Your task to perform on an android device: toggle sleep mode Image 0: 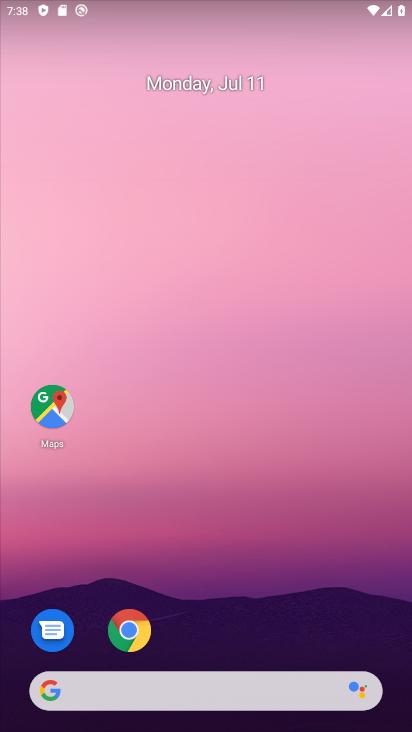
Step 0: click (129, 629)
Your task to perform on an android device: toggle sleep mode Image 1: 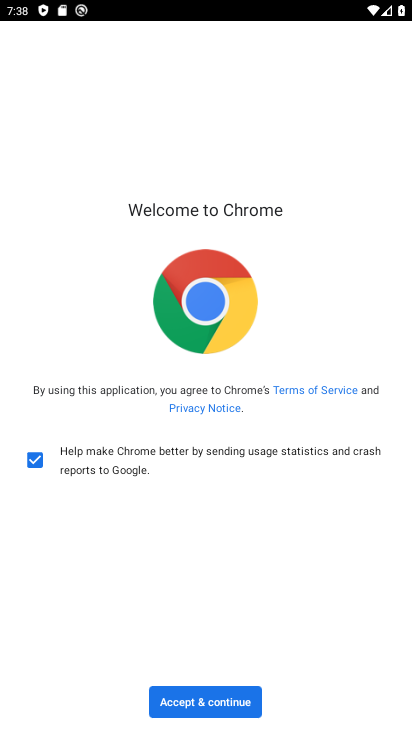
Step 1: click (210, 693)
Your task to perform on an android device: toggle sleep mode Image 2: 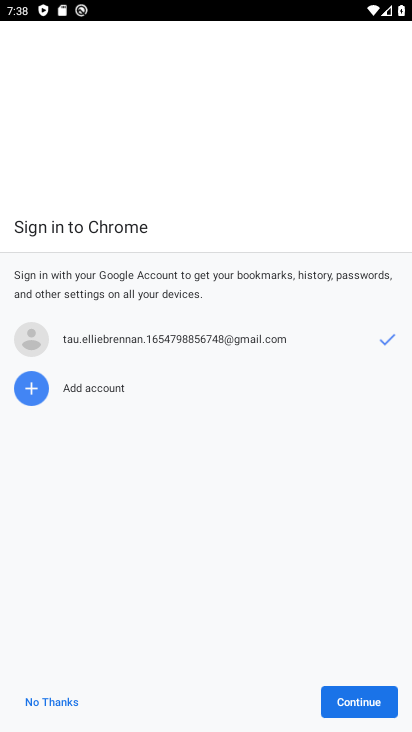
Step 2: click (389, 689)
Your task to perform on an android device: toggle sleep mode Image 3: 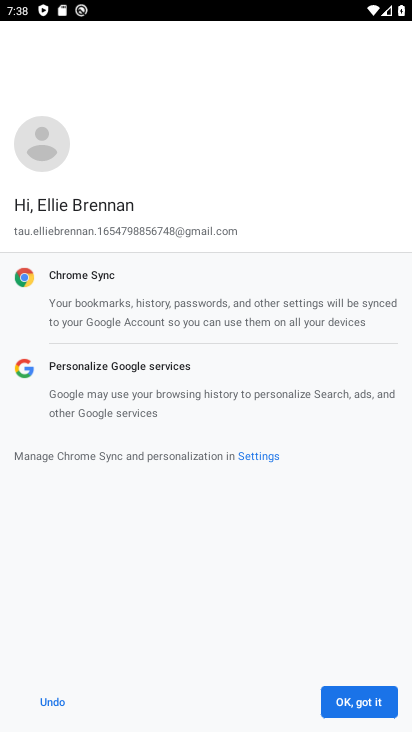
Step 3: click (380, 697)
Your task to perform on an android device: toggle sleep mode Image 4: 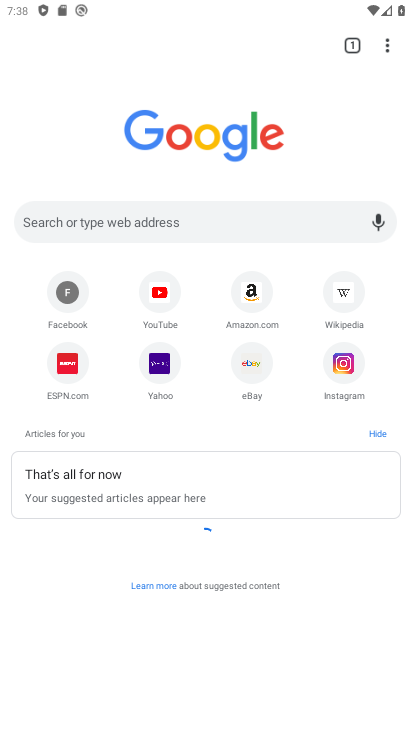
Step 4: click (128, 219)
Your task to perform on an android device: toggle sleep mode Image 5: 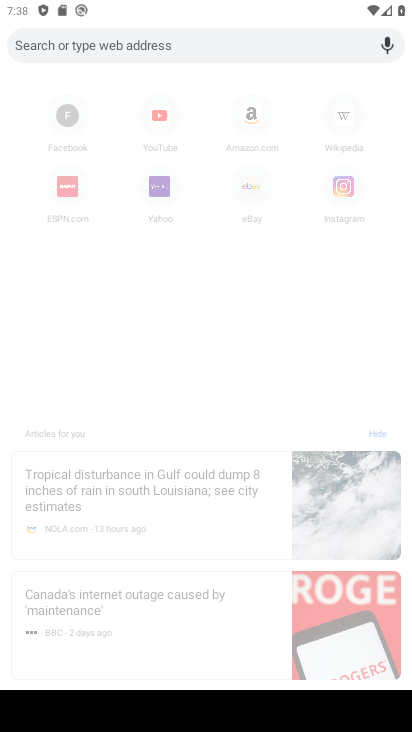
Step 5: type "weather"
Your task to perform on an android device: toggle sleep mode Image 6: 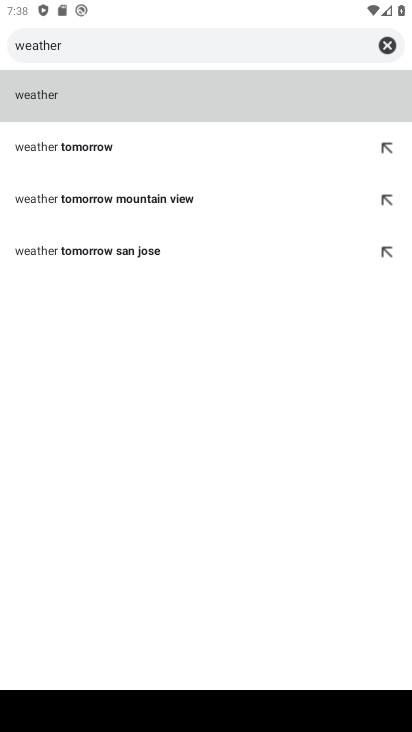
Step 6: click (144, 99)
Your task to perform on an android device: toggle sleep mode Image 7: 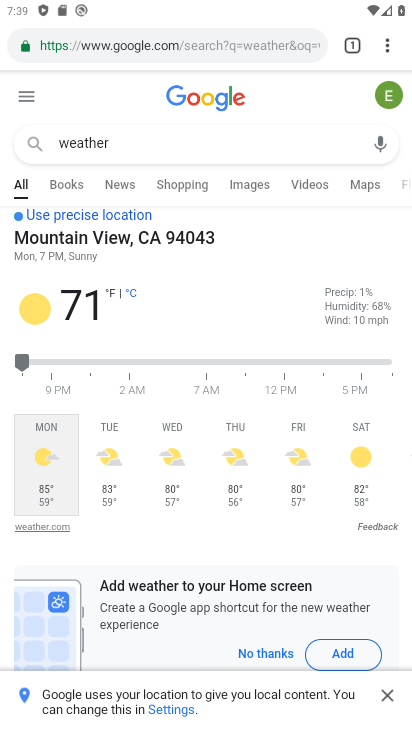
Step 7: task complete